Your task to perform on an android device: turn smart compose on in the gmail app Image 0: 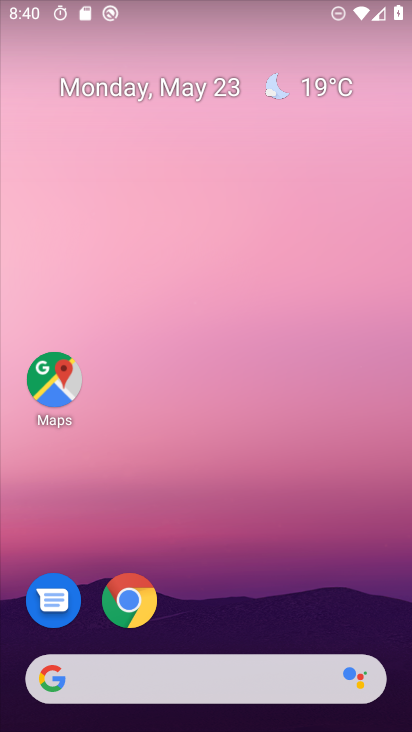
Step 0: drag from (29, 566) to (236, 129)
Your task to perform on an android device: turn smart compose on in the gmail app Image 1: 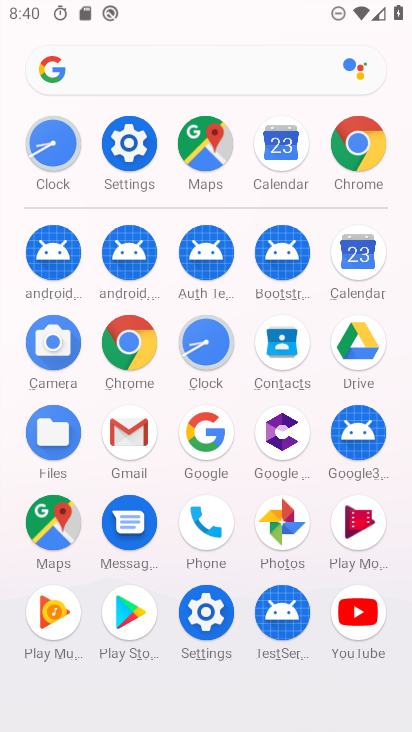
Step 1: click (126, 430)
Your task to perform on an android device: turn smart compose on in the gmail app Image 2: 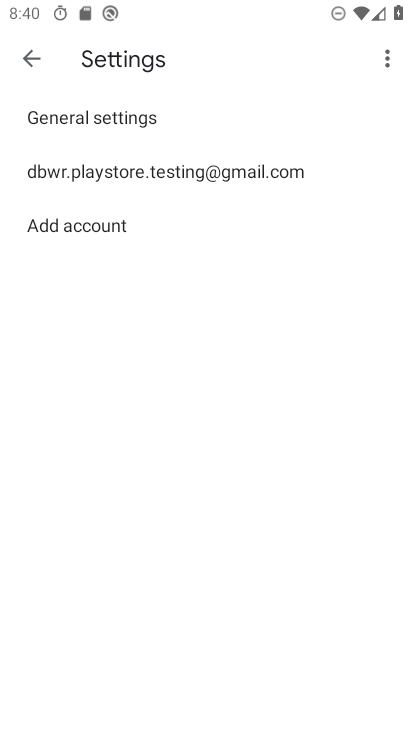
Step 2: click (82, 168)
Your task to perform on an android device: turn smart compose on in the gmail app Image 3: 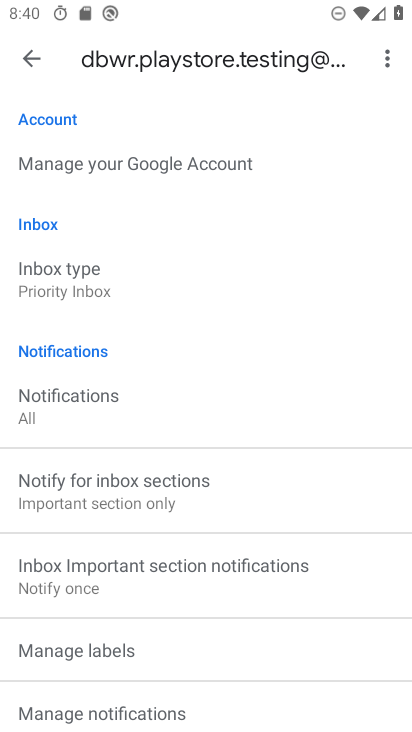
Step 3: task complete